Your task to perform on an android device: change timer sound Image 0: 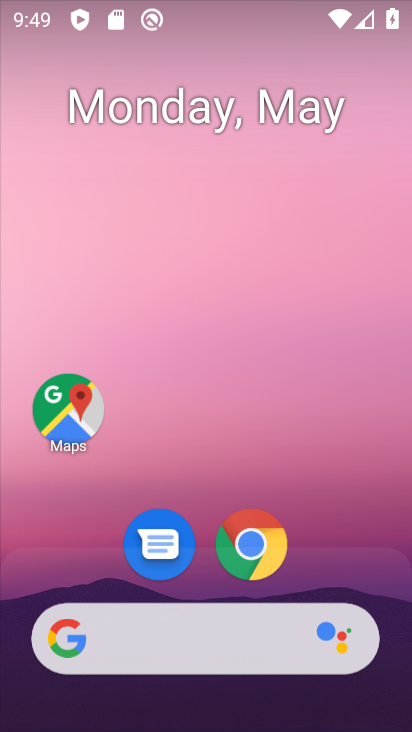
Step 0: drag from (288, 713) to (252, 19)
Your task to perform on an android device: change timer sound Image 1: 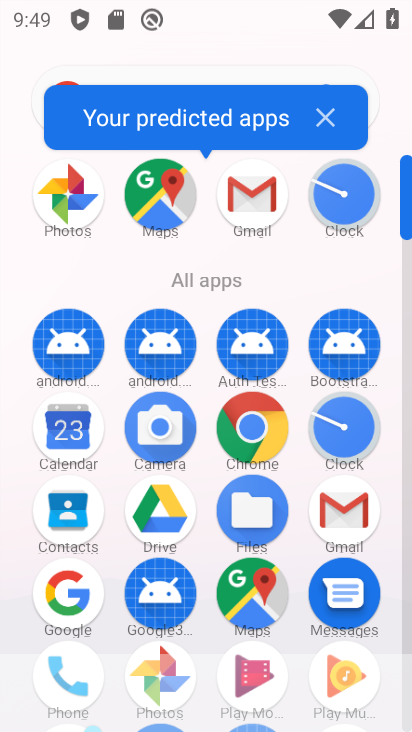
Step 1: click (333, 197)
Your task to perform on an android device: change timer sound Image 2: 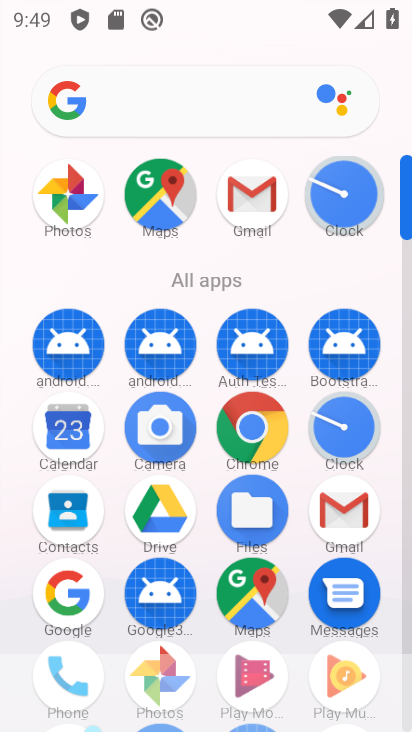
Step 2: click (334, 196)
Your task to perform on an android device: change timer sound Image 3: 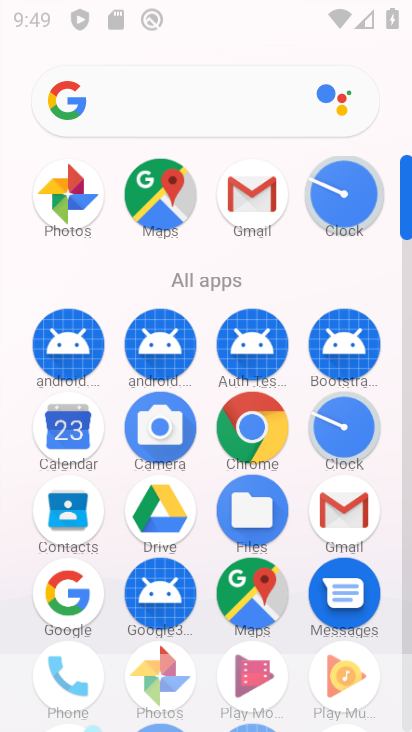
Step 3: click (343, 198)
Your task to perform on an android device: change timer sound Image 4: 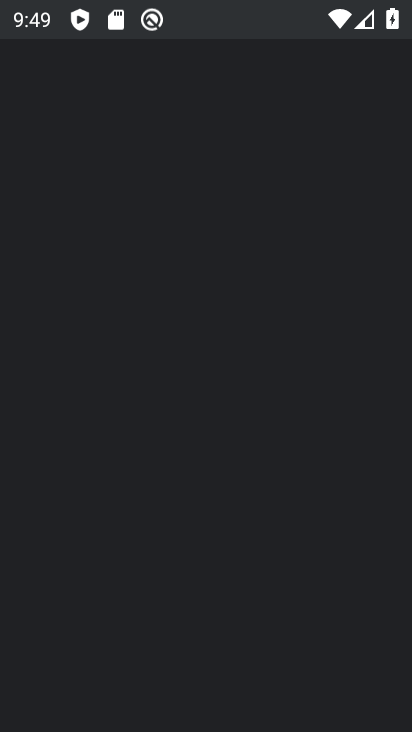
Step 4: click (343, 198)
Your task to perform on an android device: change timer sound Image 5: 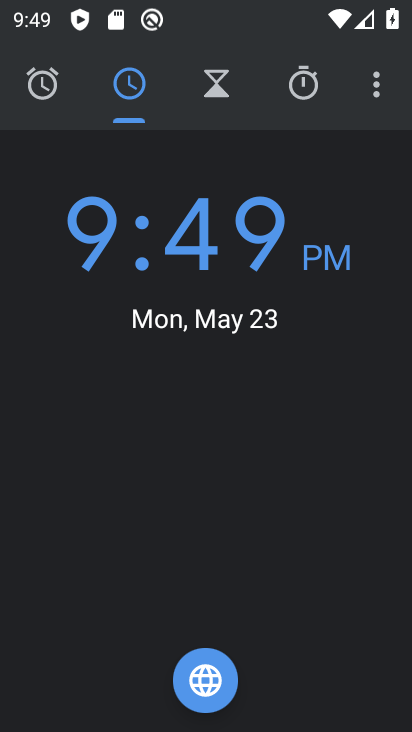
Step 5: click (373, 102)
Your task to perform on an android device: change timer sound Image 6: 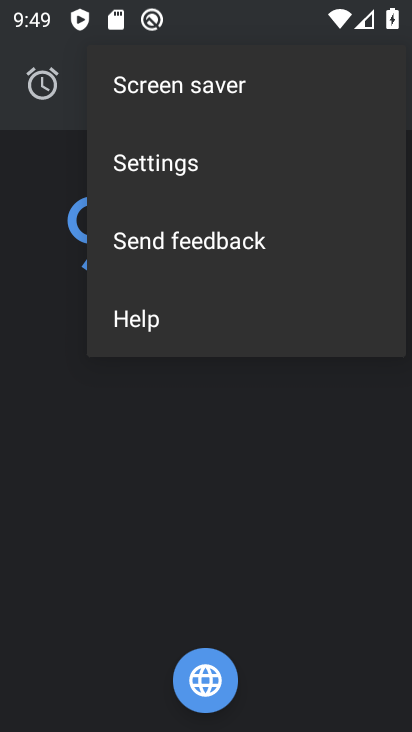
Step 6: click (187, 166)
Your task to perform on an android device: change timer sound Image 7: 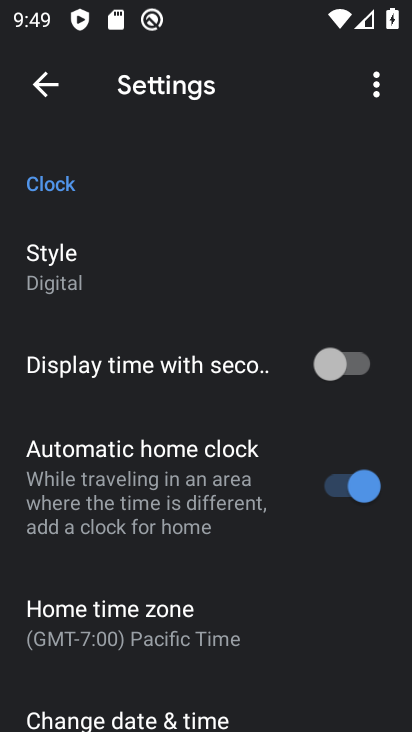
Step 7: drag from (144, 568) to (139, 128)
Your task to perform on an android device: change timer sound Image 8: 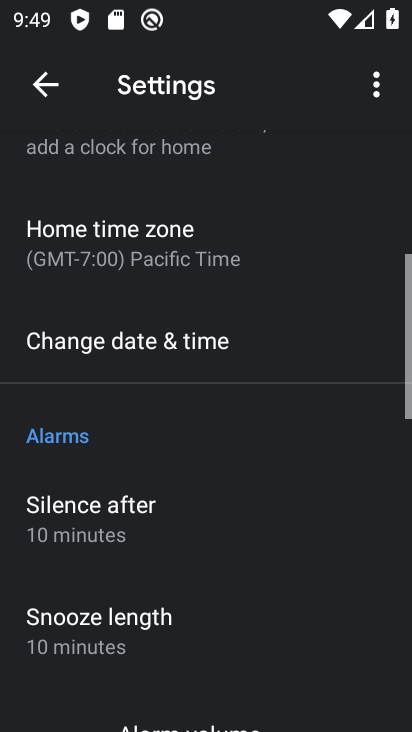
Step 8: drag from (236, 614) to (230, 289)
Your task to perform on an android device: change timer sound Image 9: 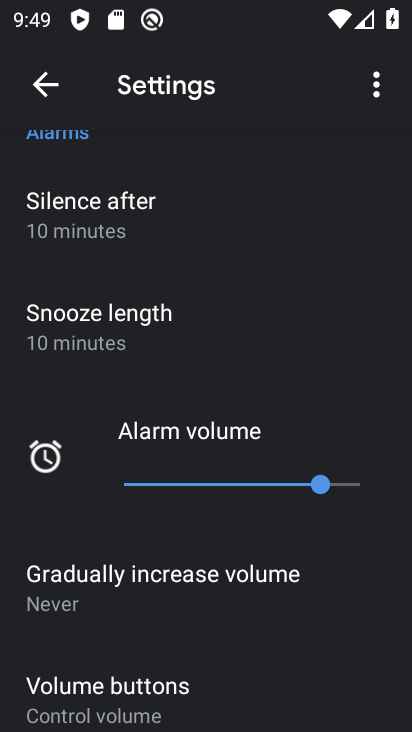
Step 9: drag from (157, 261) to (241, 531)
Your task to perform on an android device: change timer sound Image 10: 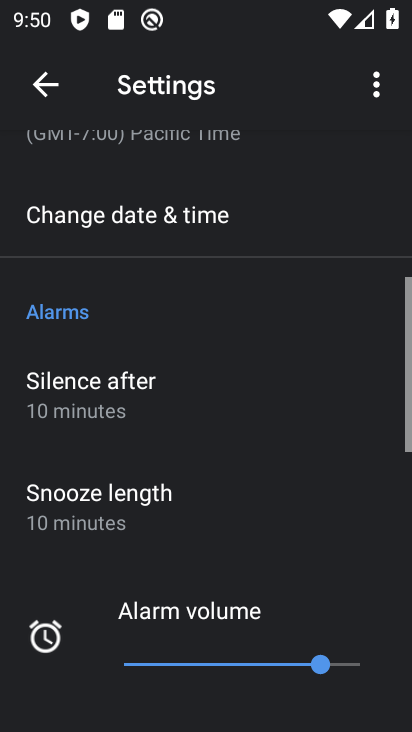
Step 10: drag from (192, 265) to (254, 567)
Your task to perform on an android device: change timer sound Image 11: 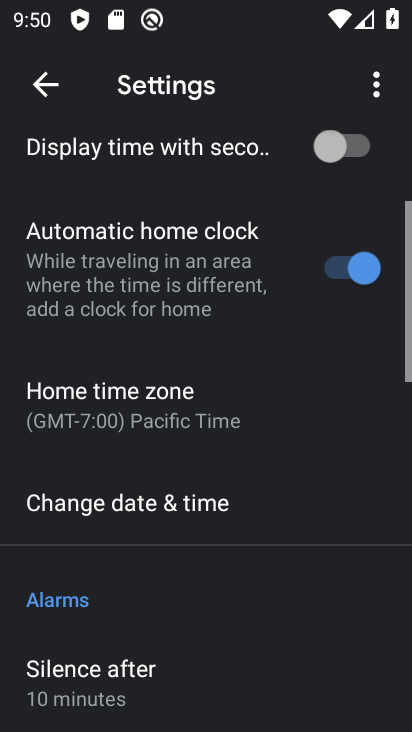
Step 11: click (204, 201)
Your task to perform on an android device: change timer sound Image 12: 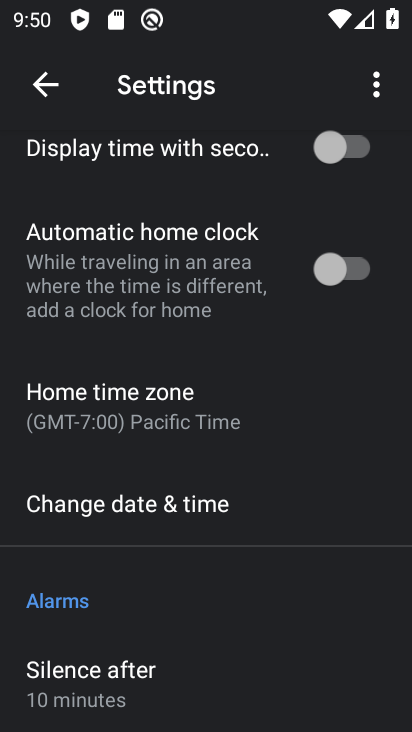
Step 12: drag from (141, 629) to (174, 299)
Your task to perform on an android device: change timer sound Image 13: 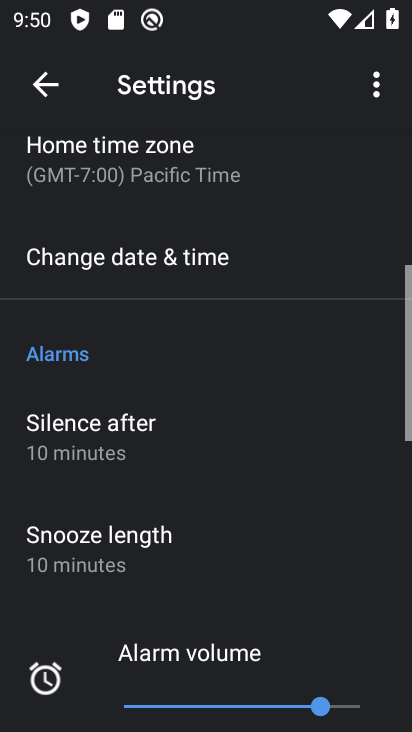
Step 13: click (180, 250)
Your task to perform on an android device: change timer sound Image 14: 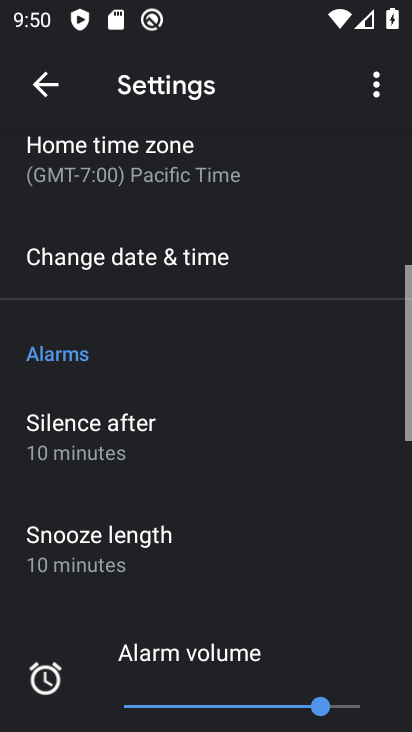
Step 14: drag from (189, 578) to (185, 262)
Your task to perform on an android device: change timer sound Image 15: 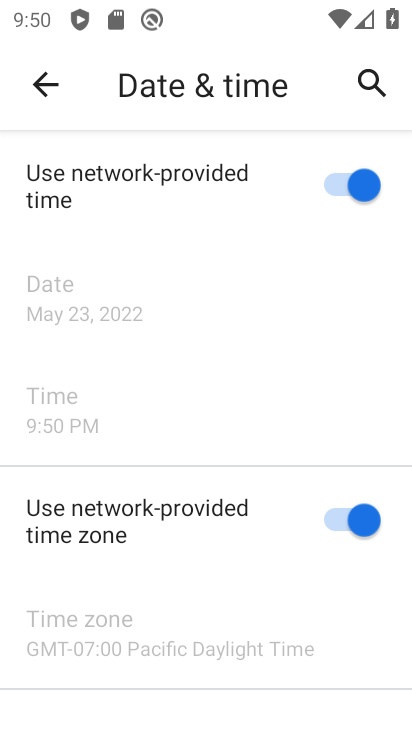
Step 15: press back button
Your task to perform on an android device: change timer sound Image 16: 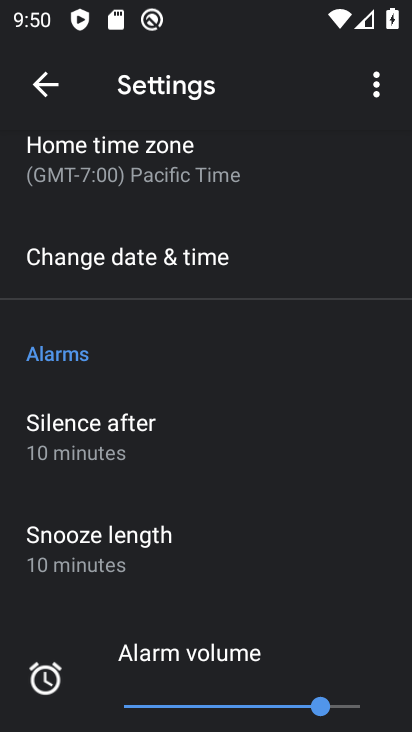
Step 16: drag from (80, 473) to (70, 169)
Your task to perform on an android device: change timer sound Image 17: 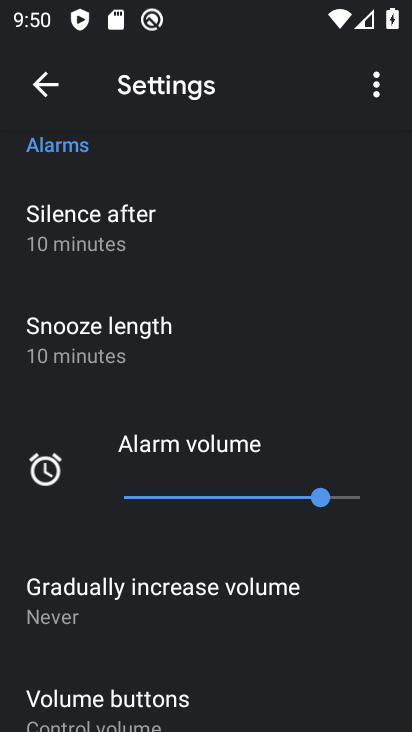
Step 17: drag from (143, 604) to (144, 265)
Your task to perform on an android device: change timer sound Image 18: 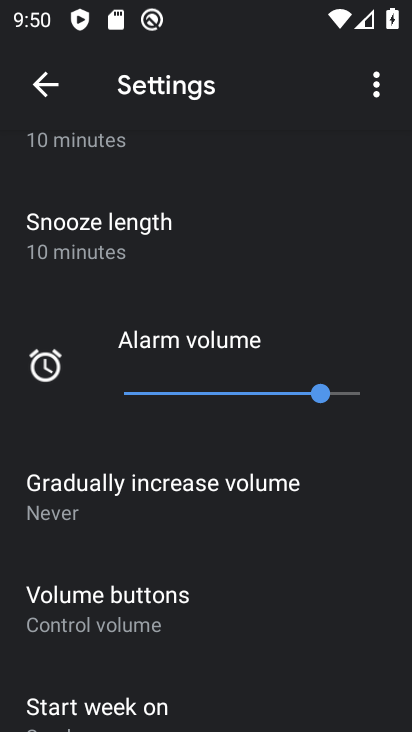
Step 18: drag from (168, 604) to (147, 212)
Your task to perform on an android device: change timer sound Image 19: 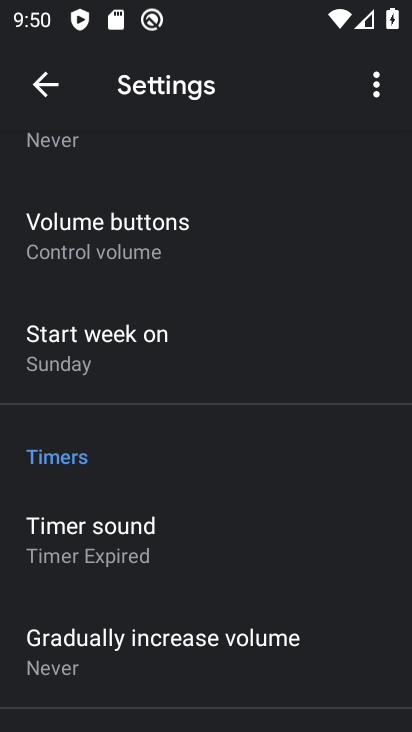
Step 19: click (116, 541)
Your task to perform on an android device: change timer sound Image 20: 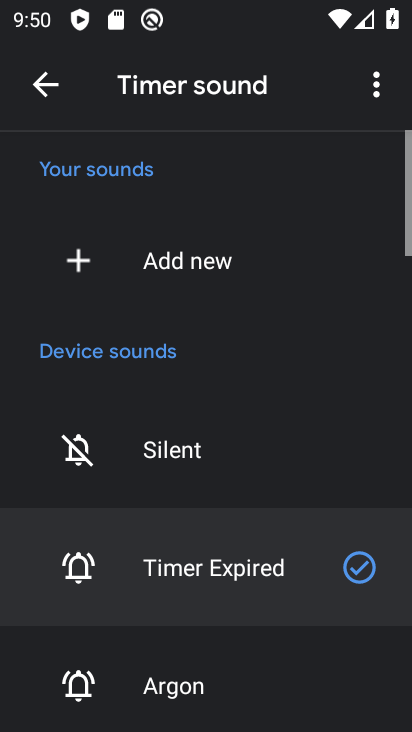
Step 20: click (77, 682)
Your task to perform on an android device: change timer sound Image 21: 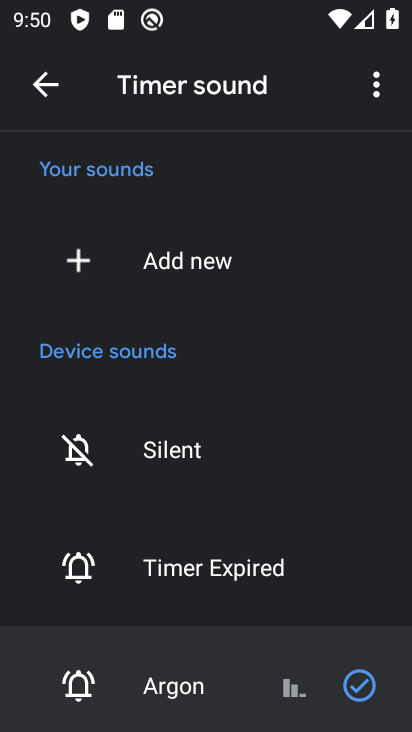
Step 21: task complete